Your task to perform on an android device: delete location history Image 0: 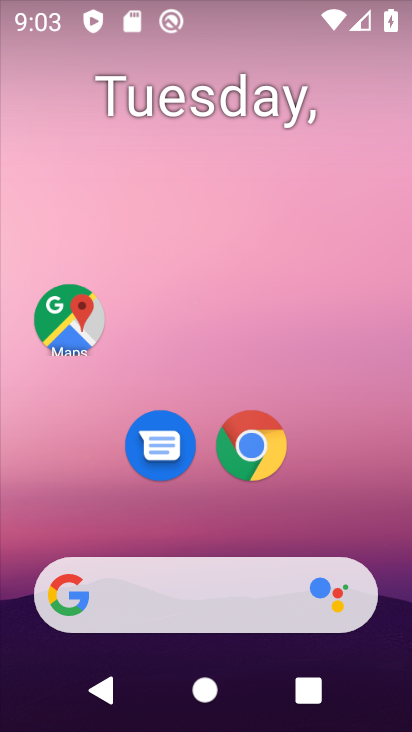
Step 0: drag from (183, 501) to (273, 75)
Your task to perform on an android device: delete location history Image 1: 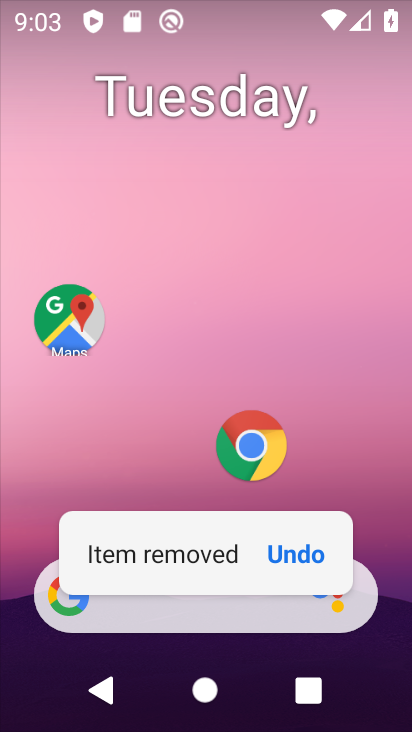
Step 1: drag from (174, 489) to (132, 0)
Your task to perform on an android device: delete location history Image 2: 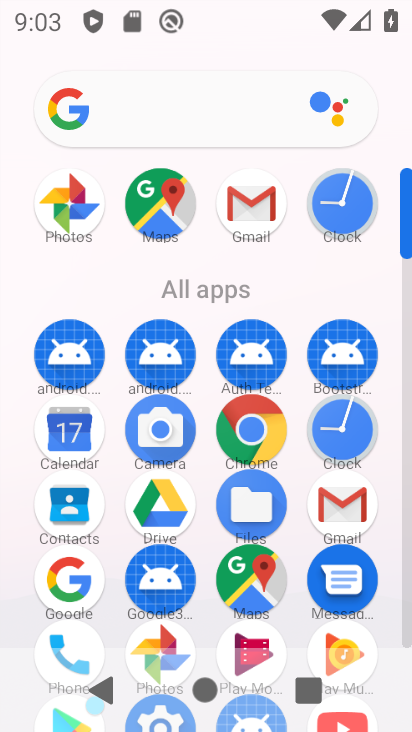
Step 2: click (162, 225)
Your task to perform on an android device: delete location history Image 3: 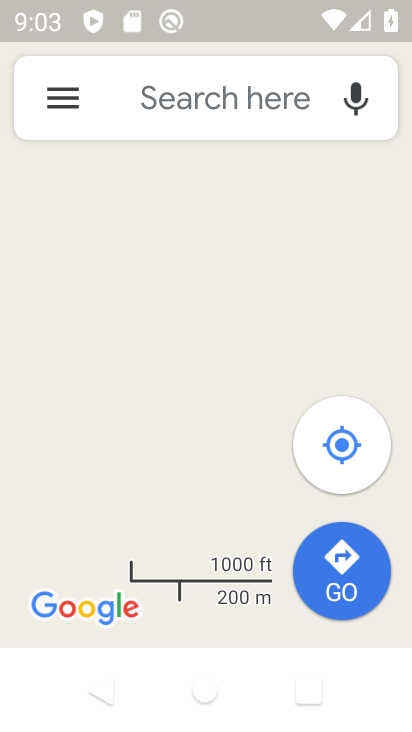
Step 3: click (58, 98)
Your task to perform on an android device: delete location history Image 4: 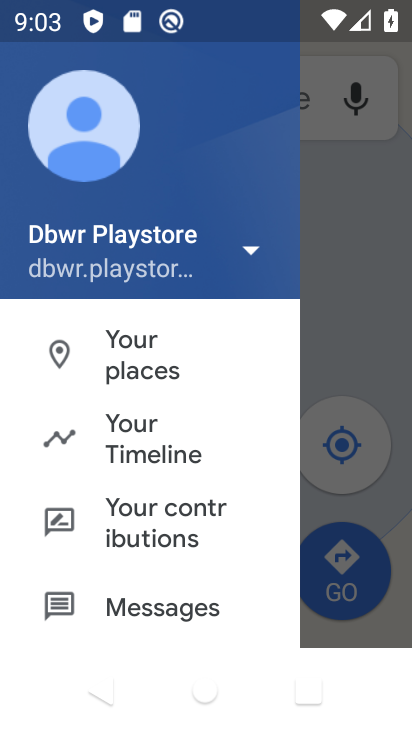
Step 4: drag from (131, 553) to (109, 225)
Your task to perform on an android device: delete location history Image 5: 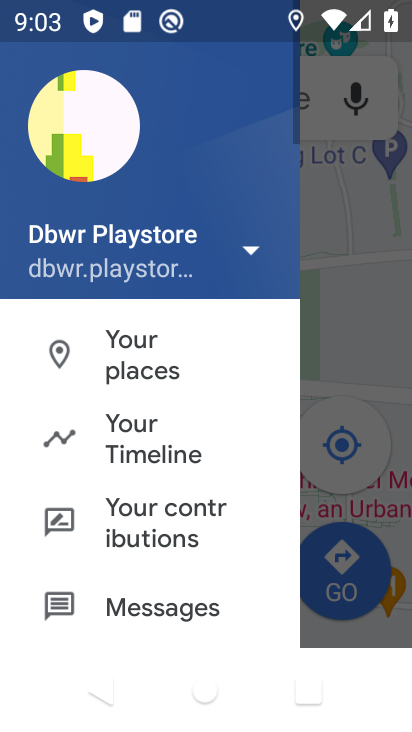
Step 5: click (148, 450)
Your task to perform on an android device: delete location history Image 6: 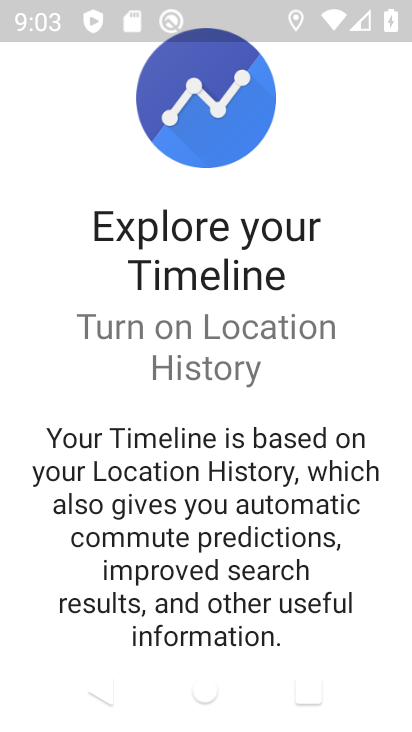
Step 6: drag from (184, 611) to (238, 388)
Your task to perform on an android device: delete location history Image 7: 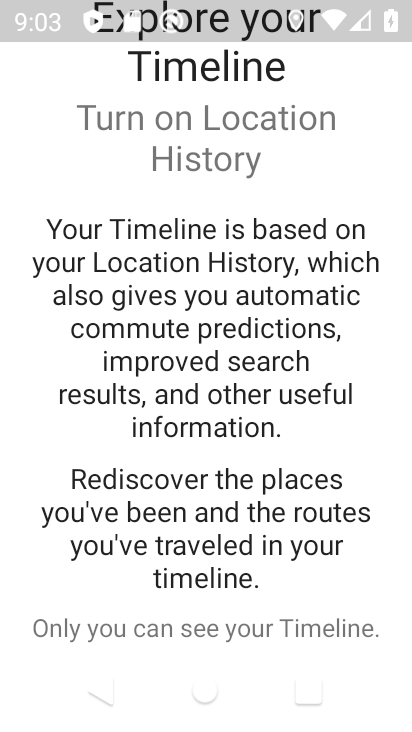
Step 7: drag from (257, 558) to (266, 242)
Your task to perform on an android device: delete location history Image 8: 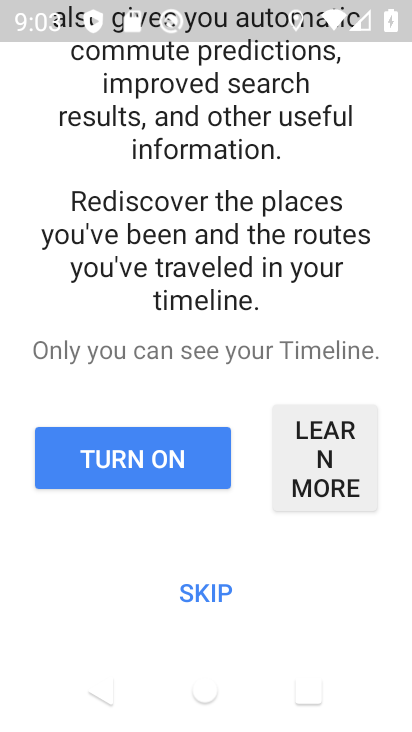
Step 8: click (207, 596)
Your task to perform on an android device: delete location history Image 9: 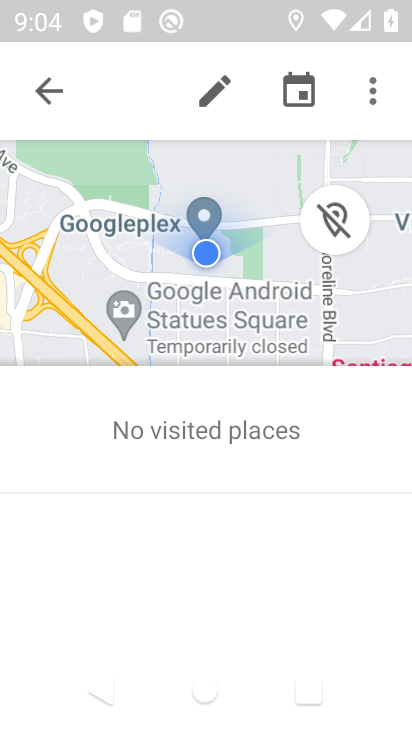
Step 9: click (374, 100)
Your task to perform on an android device: delete location history Image 10: 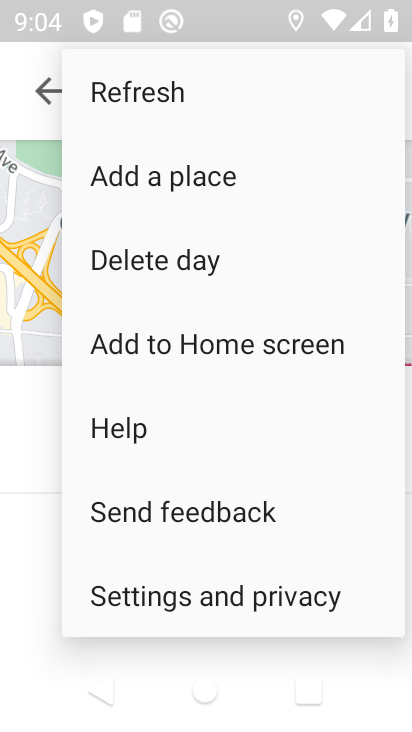
Step 10: click (182, 606)
Your task to perform on an android device: delete location history Image 11: 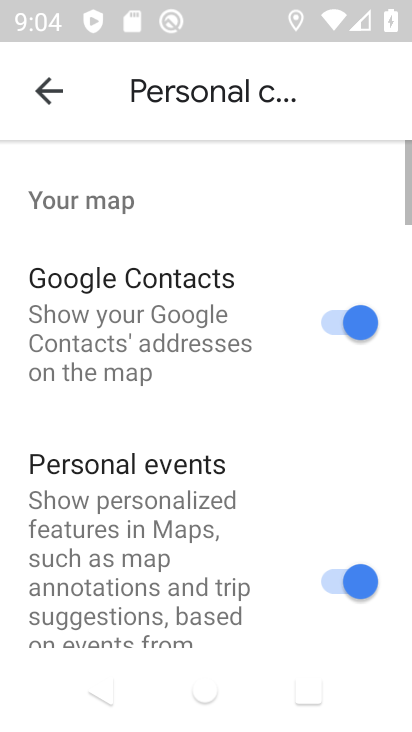
Step 11: drag from (201, 552) to (196, 241)
Your task to perform on an android device: delete location history Image 12: 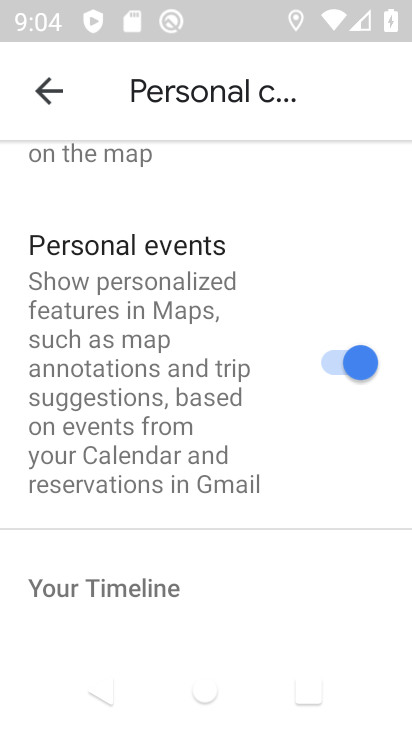
Step 12: drag from (206, 536) to (156, 227)
Your task to perform on an android device: delete location history Image 13: 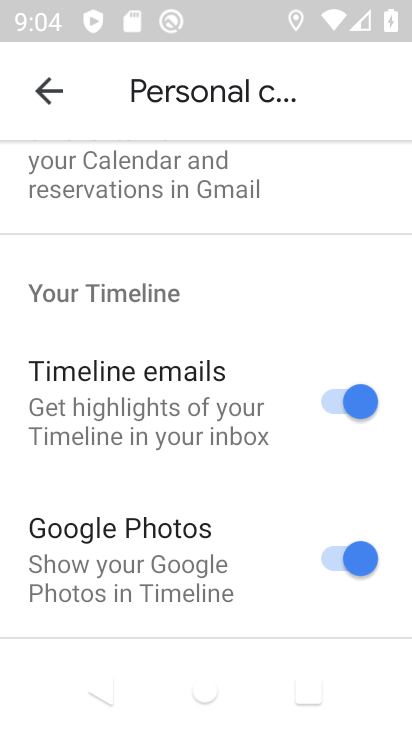
Step 13: drag from (201, 600) to (187, 286)
Your task to perform on an android device: delete location history Image 14: 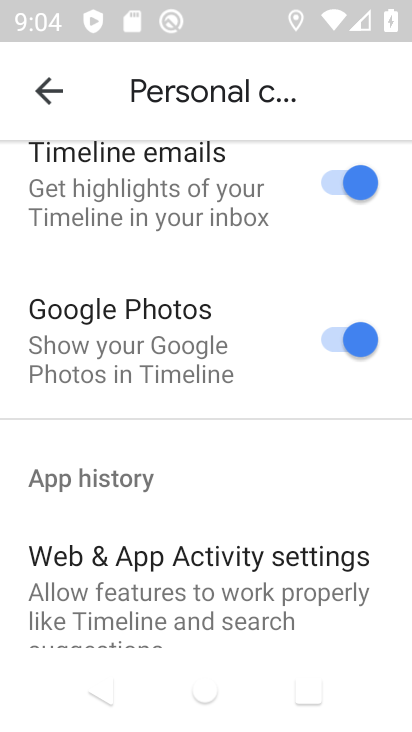
Step 14: drag from (200, 570) to (201, 268)
Your task to perform on an android device: delete location history Image 15: 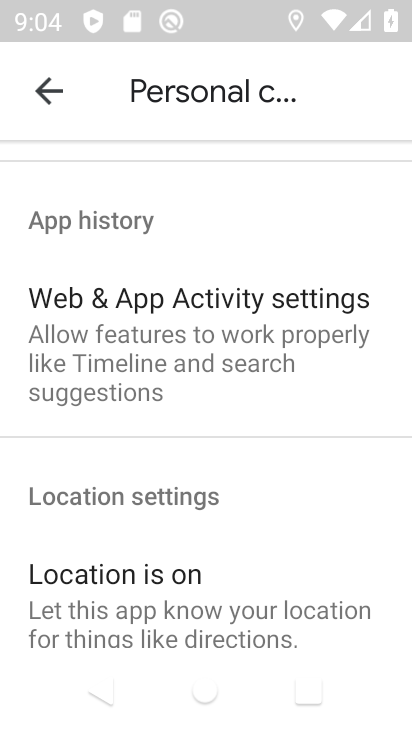
Step 15: drag from (161, 628) to (158, 306)
Your task to perform on an android device: delete location history Image 16: 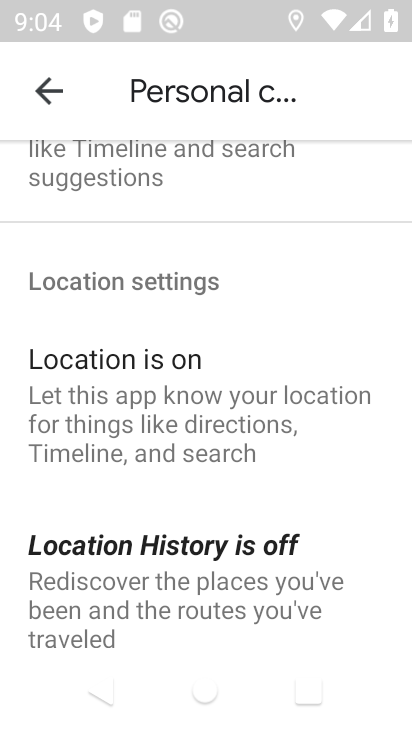
Step 16: drag from (166, 587) to (160, 356)
Your task to perform on an android device: delete location history Image 17: 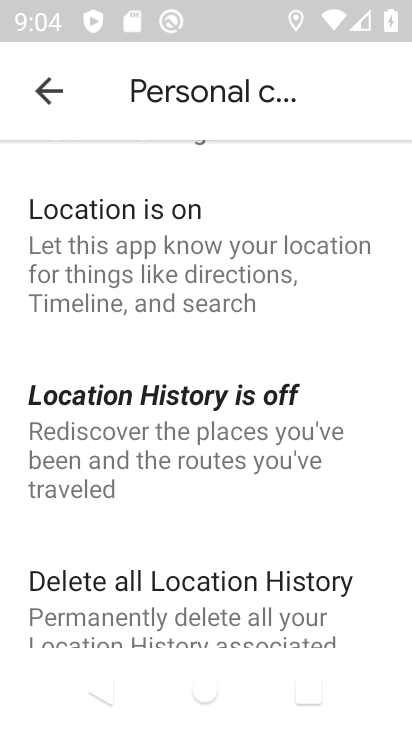
Step 17: click (123, 598)
Your task to perform on an android device: delete location history Image 18: 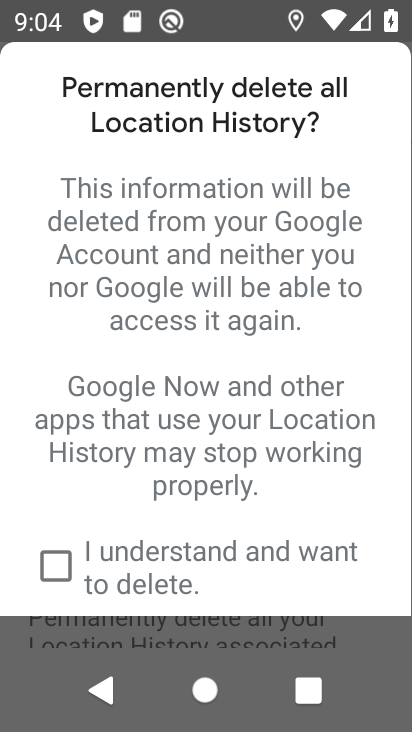
Step 18: click (48, 571)
Your task to perform on an android device: delete location history Image 19: 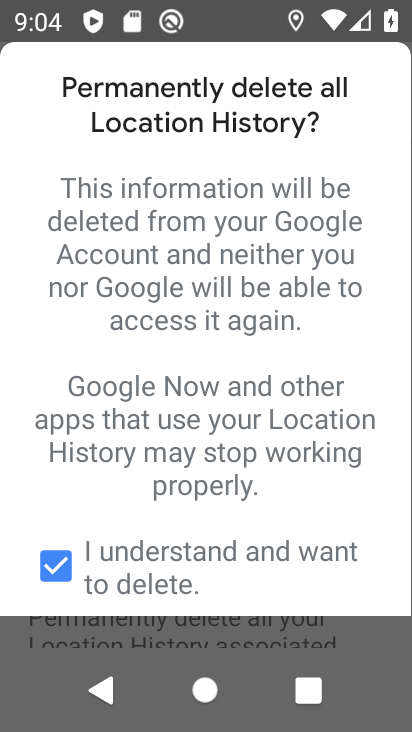
Step 19: task complete